Your task to perform on an android device: find snoozed emails in the gmail app Image 0: 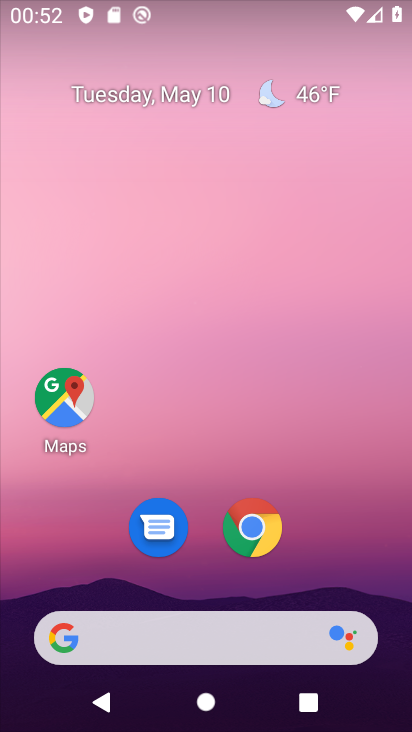
Step 0: drag from (317, 482) to (106, 114)
Your task to perform on an android device: find snoozed emails in the gmail app Image 1: 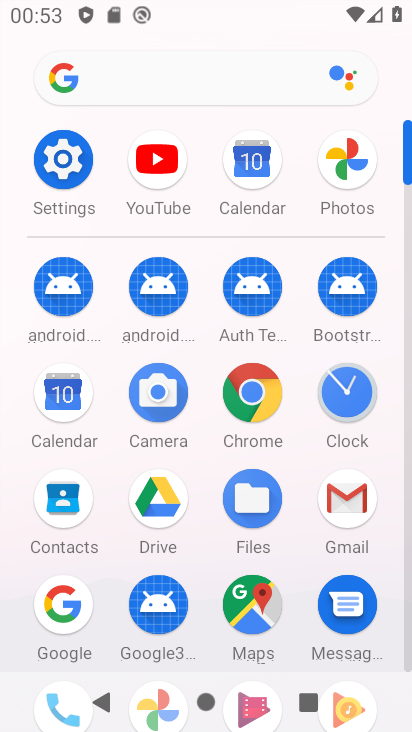
Step 1: click (336, 507)
Your task to perform on an android device: find snoozed emails in the gmail app Image 2: 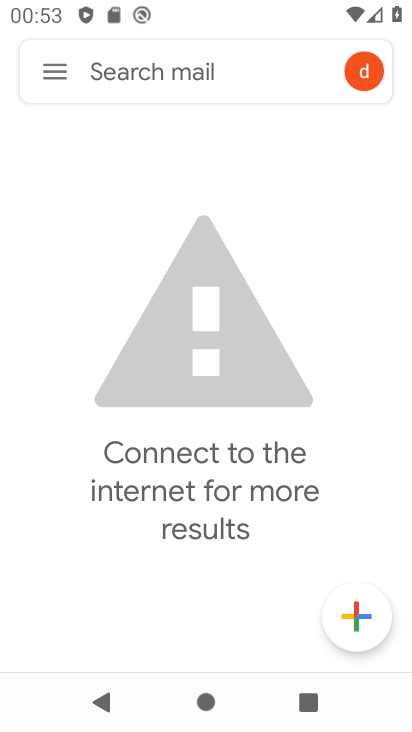
Step 2: click (50, 68)
Your task to perform on an android device: find snoozed emails in the gmail app Image 3: 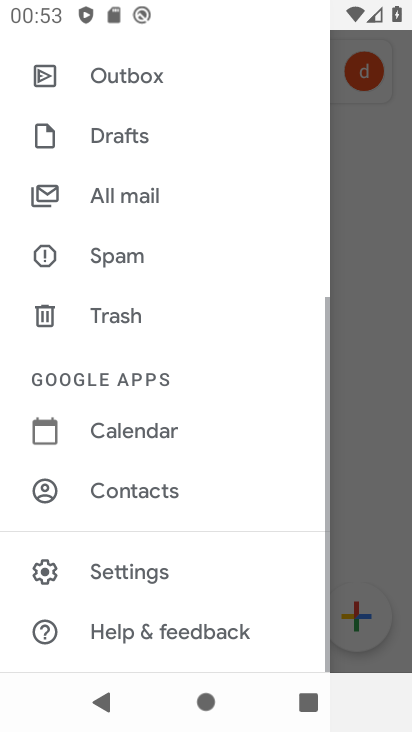
Step 3: drag from (102, 111) to (122, 436)
Your task to perform on an android device: find snoozed emails in the gmail app Image 4: 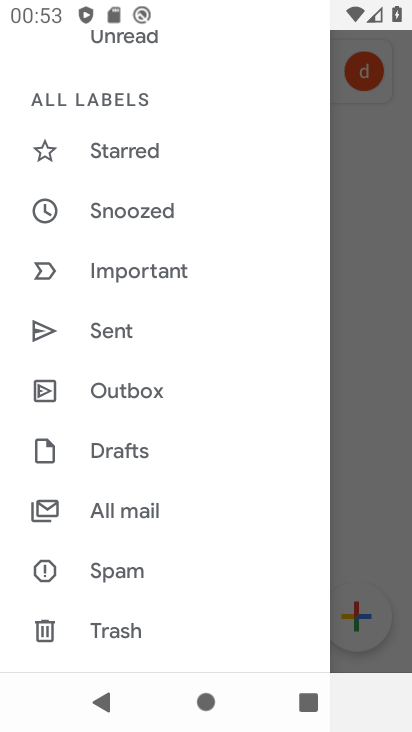
Step 4: click (107, 211)
Your task to perform on an android device: find snoozed emails in the gmail app Image 5: 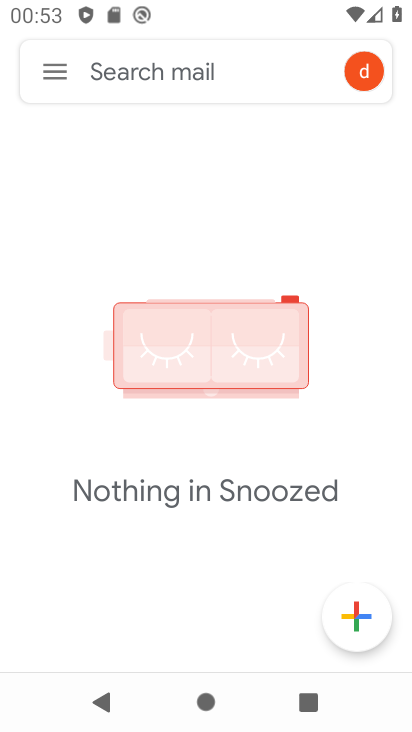
Step 5: task complete